Your task to perform on an android device: snooze an email in the gmail app Image 0: 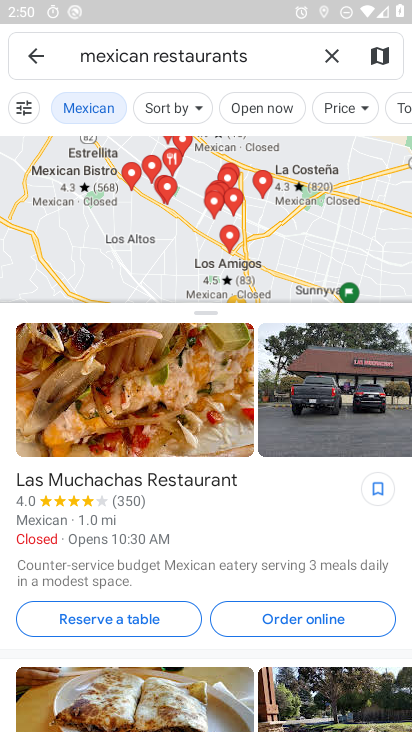
Step 0: press home button
Your task to perform on an android device: snooze an email in the gmail app Image 1: 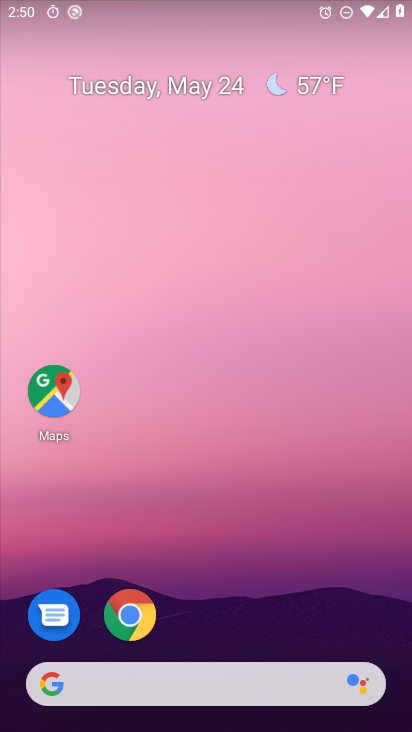
Step 1: drag from (177, 638) to (184, 260)
Your task to perform on an android device: snooze an email in the gmail app Image 2: 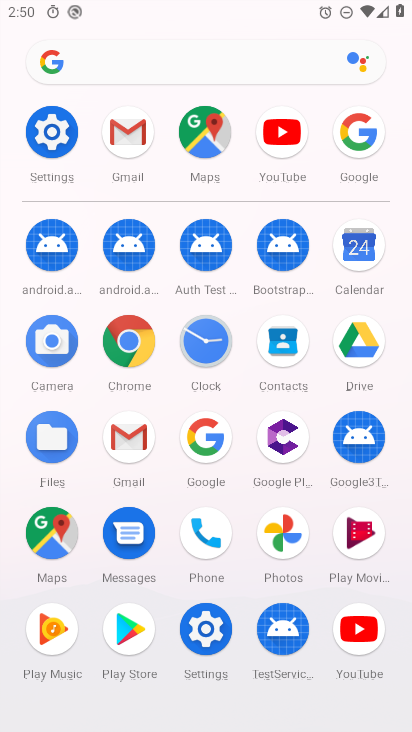
Step 2: click (128, 139)
Your task to perform on an android device: snooze an email in the gmail app Image 3: 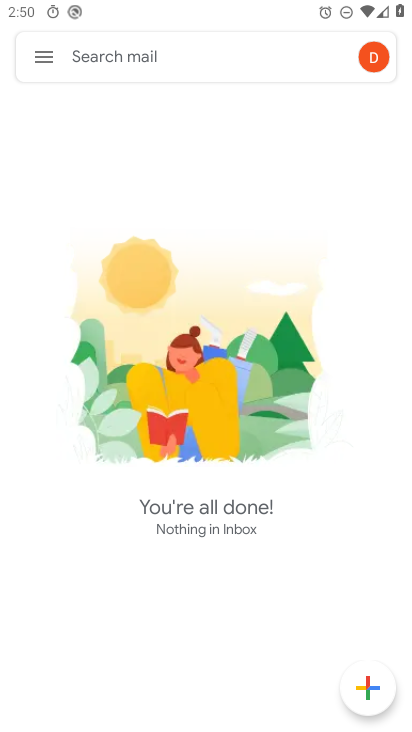
Step 3: click (42, 49)
Your task to perform on an android device: snooze an email in the gmail app Image 4: 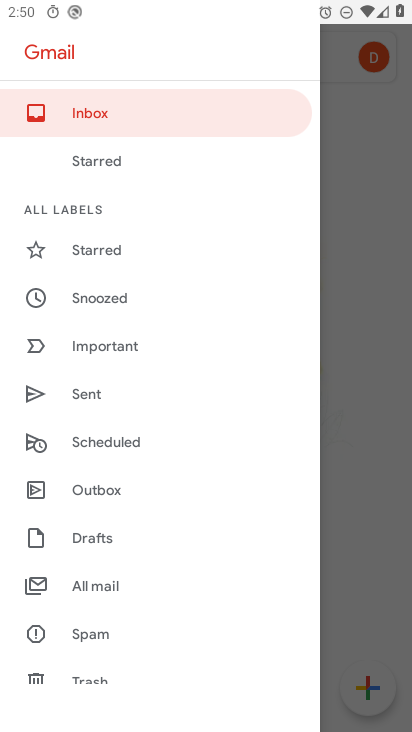
Step 4: click (89, 304)
Your task to perform on an android device: snooze an email in the gmail app Image 5: 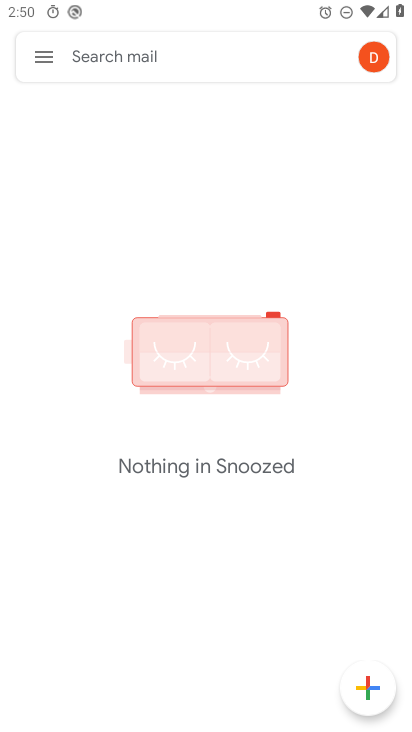
Step 5: task complete